Your task to perform on an android device: Go to CNN.com Image 0: 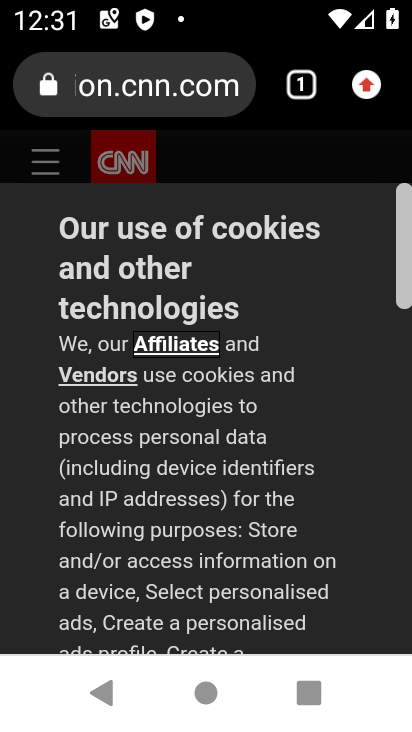
Step 0: task complete